Your task to perform on an android device: turn on airplane mode Image 0: 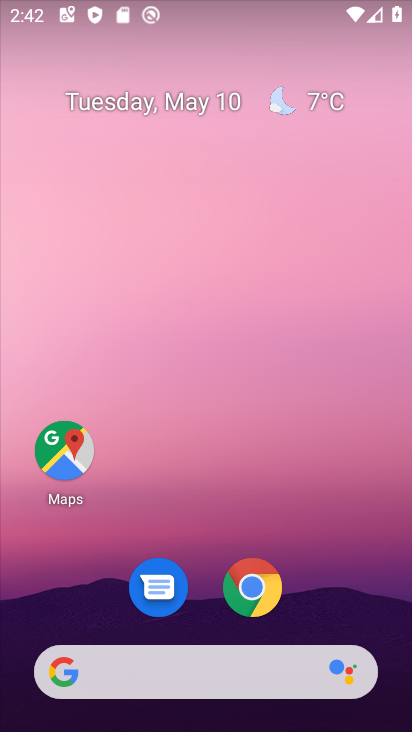
Step 0: drag from (381, 2) to (336, 575)
Your task to perform on an android device: turn on airplane mode Image 1: 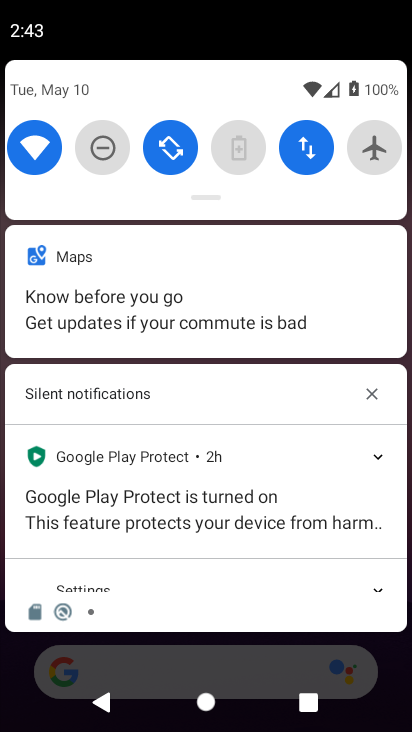
Step 1: click (371, 142)
Your task to perform on an android device: turn on airplane mode Image 2: 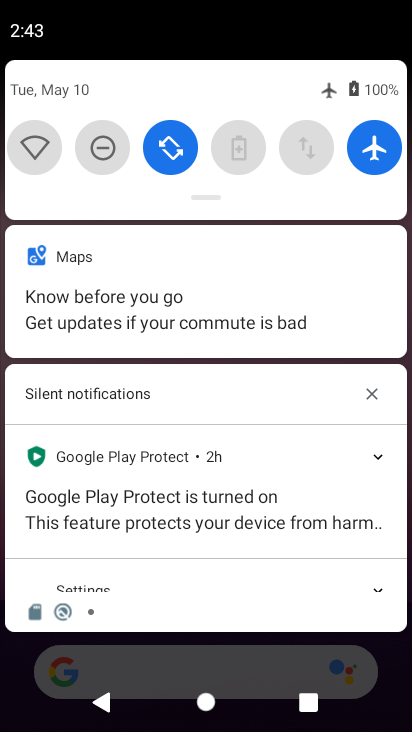
Step 2: task complete